Your task to perform on an android device: Open calendar and show me the first week of next month Image 0: 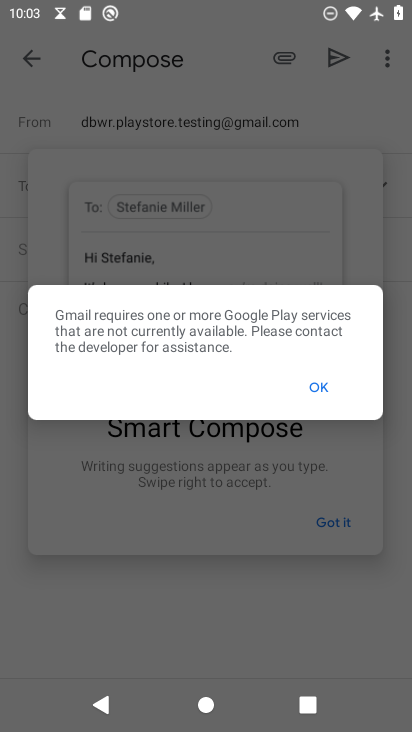
Step 0: press home button
Your task to perform on an android device: Open calendar and show me the first week of next month Image 1: 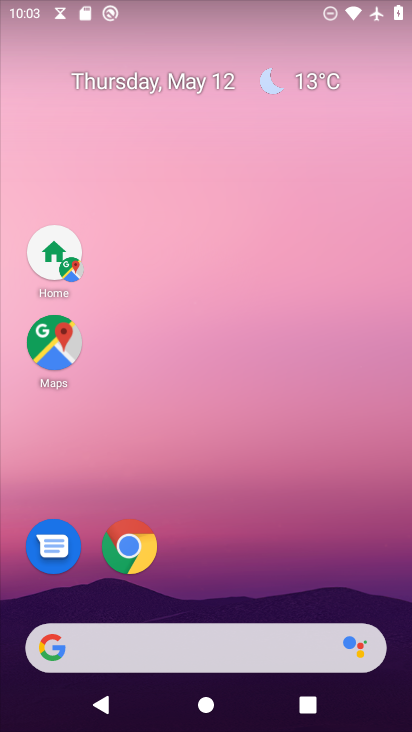
Step 1: drag from (106, 660) to (255, 186)
Your task to perform on an android device: Open calendar and show me the first week of next month Image 2: 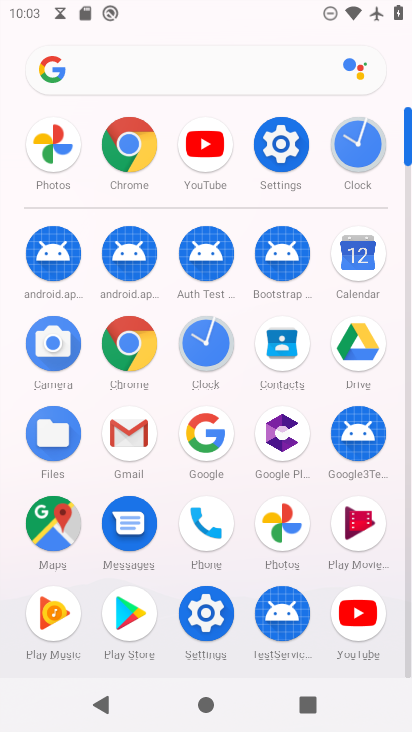
Step 2: click (353, 271)
Your task to perform on an android device: Open calendar and show me the first week of next month Image 3: 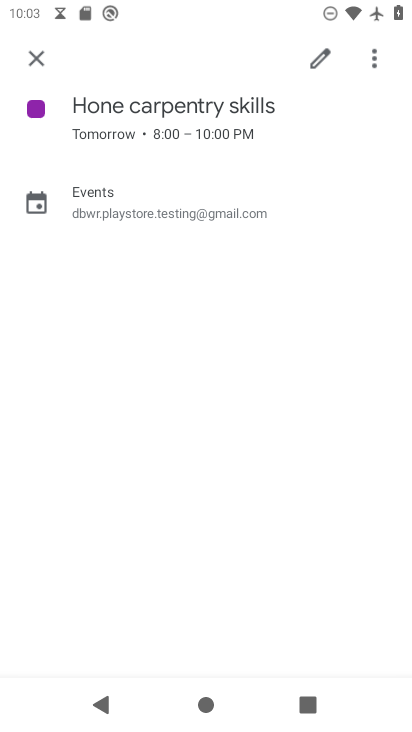
Step 3: click (31, 69)
Your task to perform on an android device: Open calendar and show me the first week of next month Image 4: 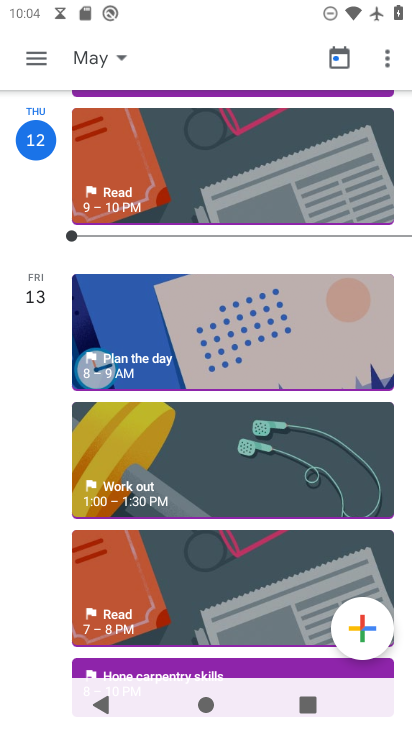
Step 4: click (103, 64)
Your task to perform on an android device: Open calendar and show me the first week of next month Image 5: 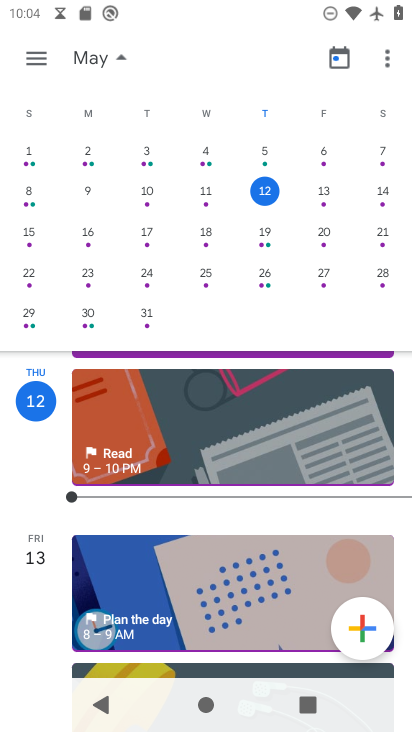
Step 5: drag from (360, 249) to (17, 216)
Your task to perform on an android device: Open calendar and show me the first week of next month Image 6: 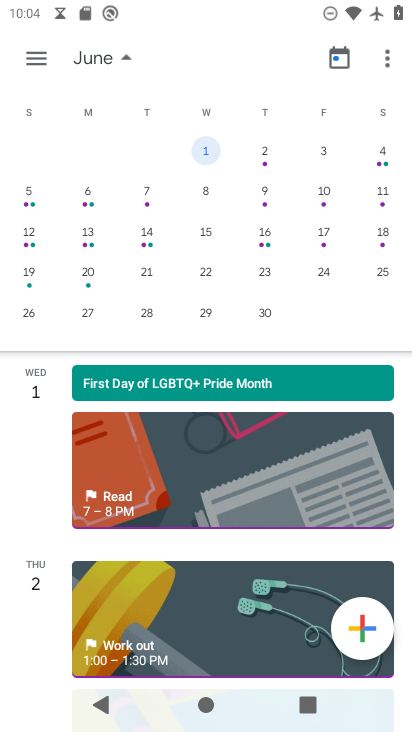
Step 6: click (205, 152)
Your task to perform on an android device: Open calendar and show me the first week of next month Image 7: 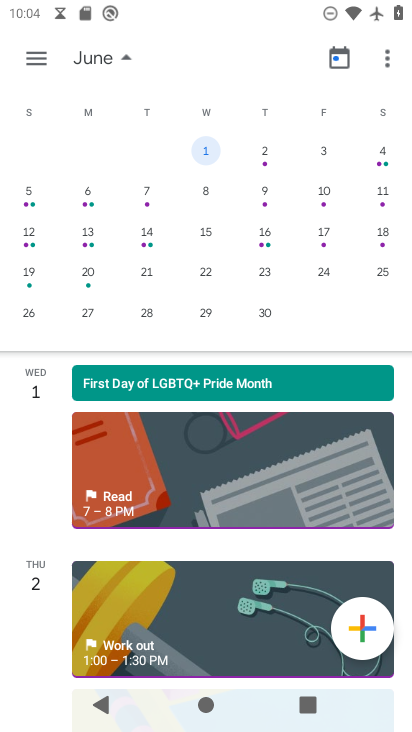
Step 7: click (32, 61)
Your task to perform on an android device: Open calendar and show me the first week of next month Image 8: 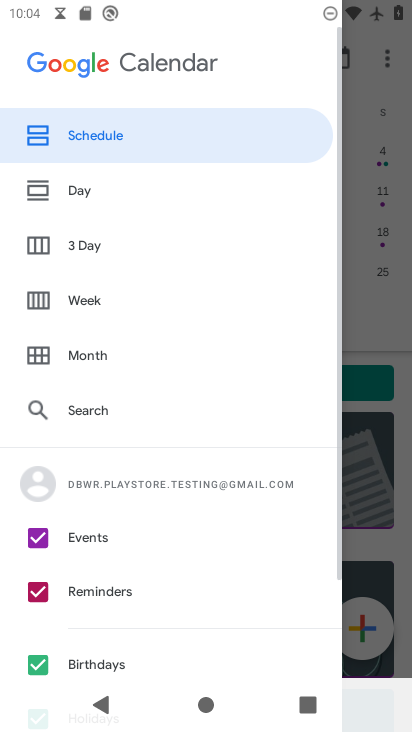
Step 8: click (98, 303)
Your task to perform on an android device: Open calendar and show me the first week of next month Image 9: 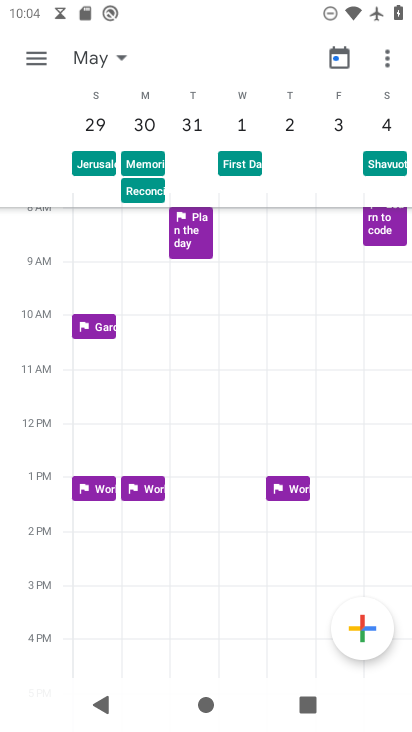
Step 9: task complete